Your task to perform on an android device: allow notifications from all sites in the chrome app Image 0: 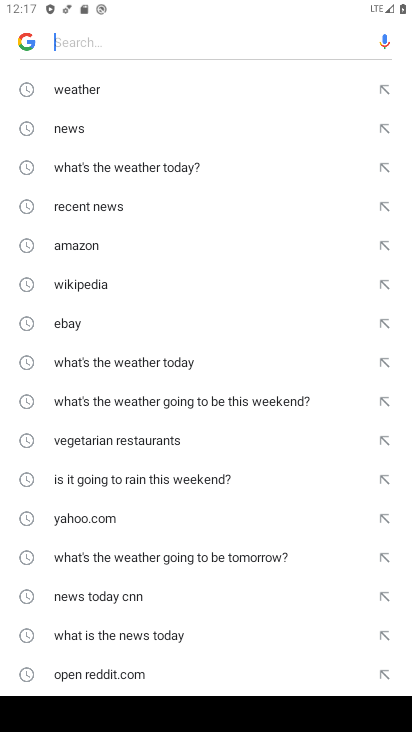
Step 0: press home button
Your task to perform on an android device: allow notifications from all sites in the chrome app Image 1: 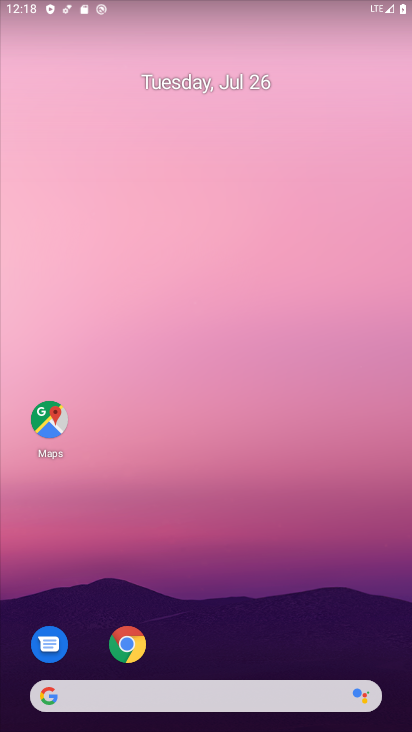
Step 1: click (131, 642)
Your task to perform on an android device: allow notifications from all sites in the chrome app Image 2: 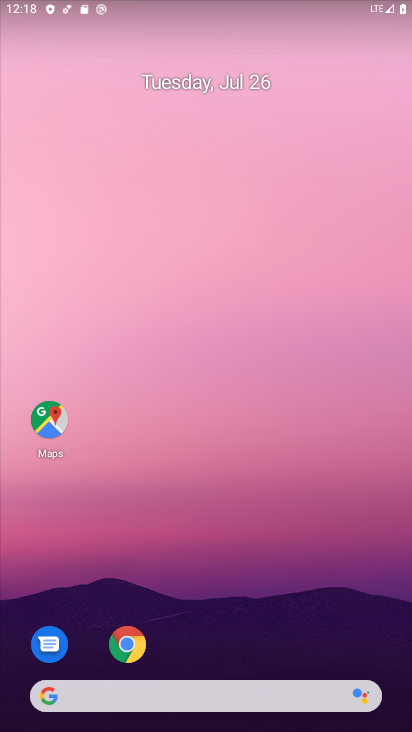
Step 2: click (129, 642)
Your task to perform on an android device: allow notifications from all sites in the chrome app Image 3: 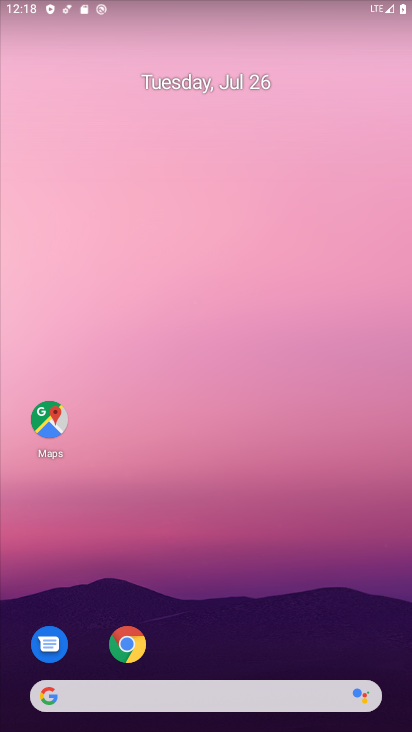
Step 3: click (129, 642)
Your task to perform on an android device: allow notifications from all sites in the chrome app Image 4: 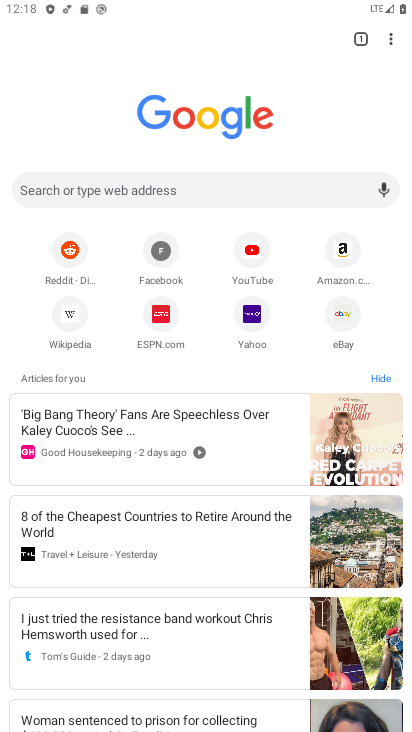
Step 4: click (389, 36)
Your task to perform on an android device: allow notifications from all sites in the chrome app Image 5: 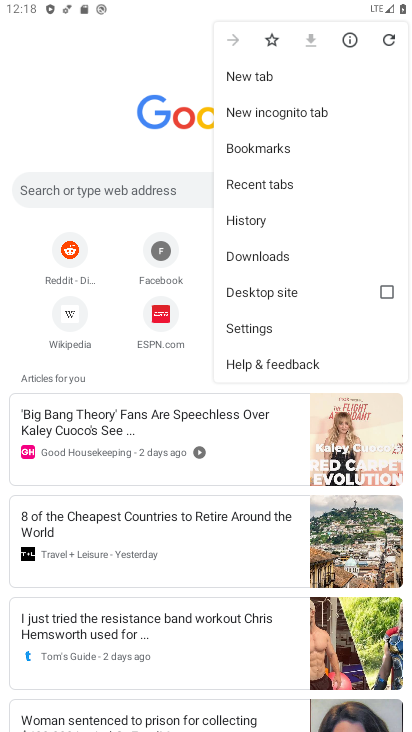
Step 5: click (281, 325)
Your task to perform on an android device: allow notifications from all sites in the chrome app Image 6: 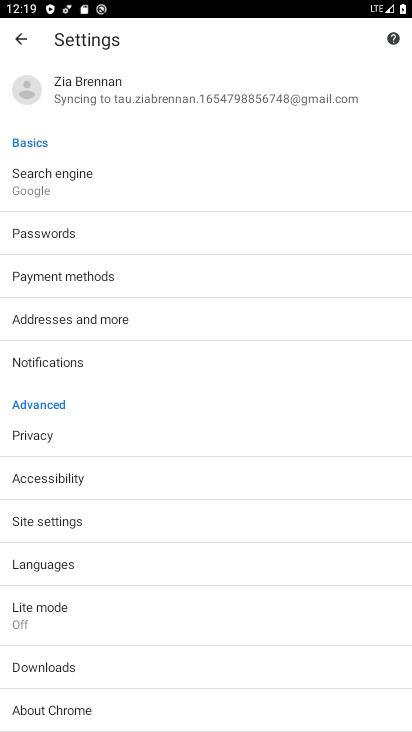
Step 6: click (29, 360)
Your task to perform on an android device: allow notifications from all sites in the chrome app Image 7: 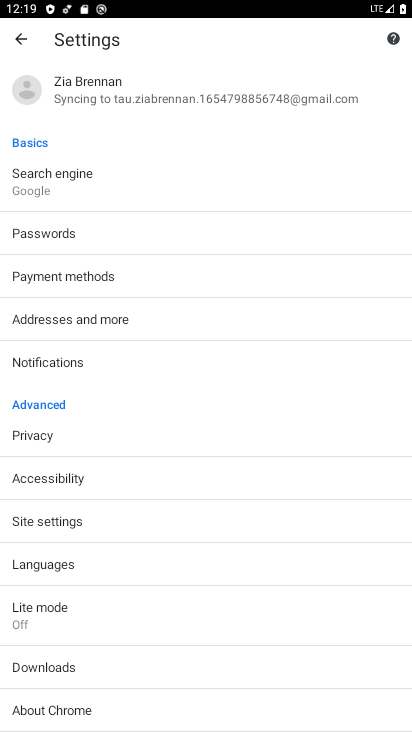
Step 7: click (29, 360)
Your task to perform on an android device: allow notifications from all sites in the chrome app Image 8: 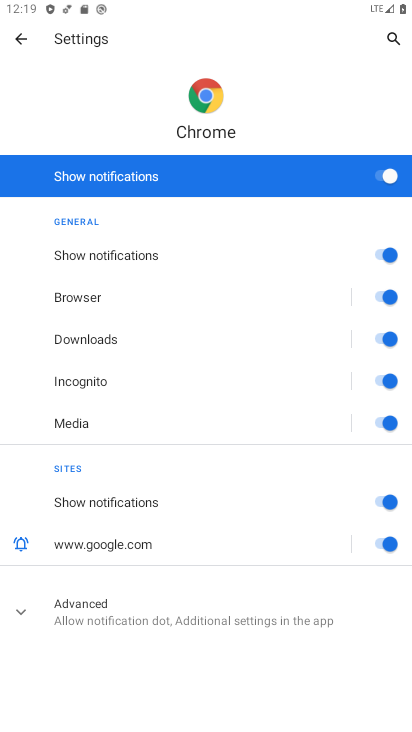
Step 8: task complete